Your task to perform on an android device: open a bookmark in the chrome app Image 0: 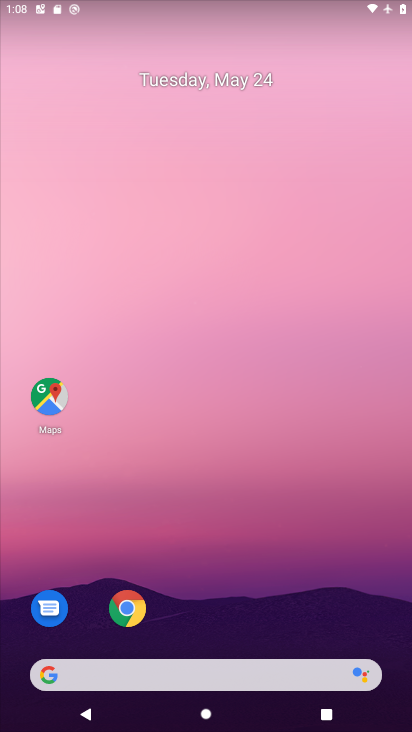
Step 0: click (123, 605)
Your task to perform on an android device: open a bookmark in the chrome app Image 1: 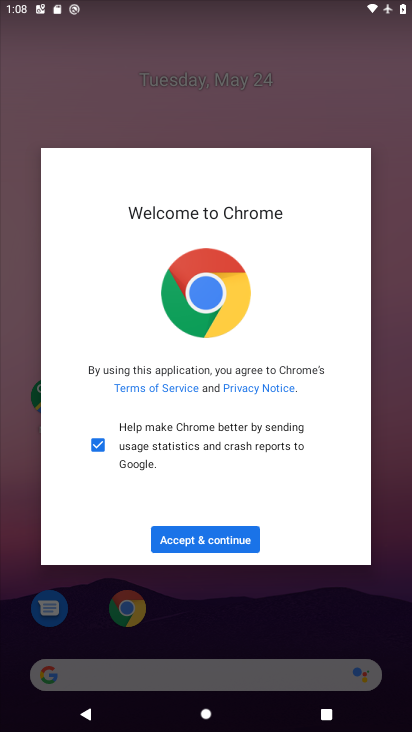
Step 1: click (186, 545)
Your task to perform on an android device: open a bookmark in the chrome app Image 2: 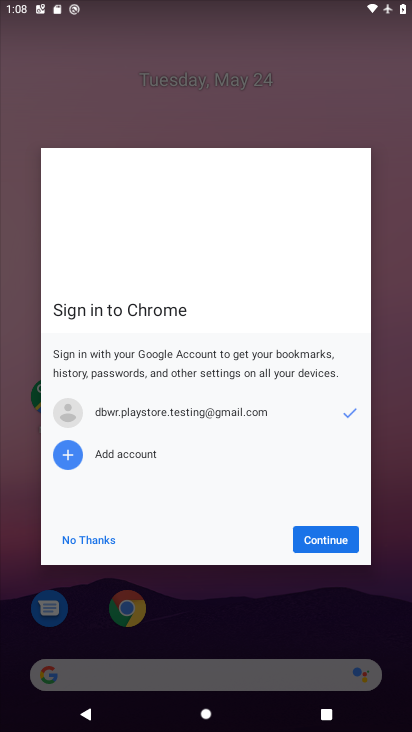
Step 2: click (312, 533)
Your task to perform on an android device: open a bookmark in the chrome app Image 3: 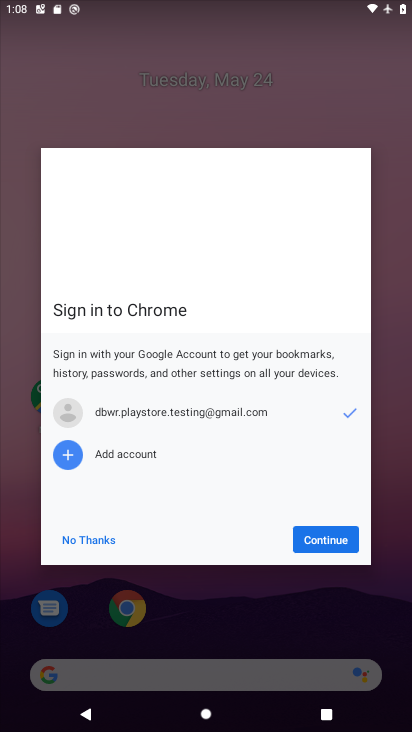
Step 3: click (312, 533)
Your task to perform on an android device: open a bookmark in the chrome app Image 4: 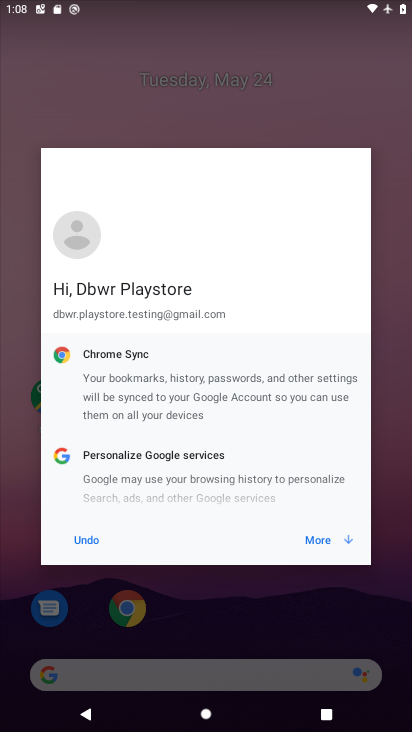
Step 4: click (312, 533)
Your task to perform on an android device: open a bookmark in the chrome app Image 5: 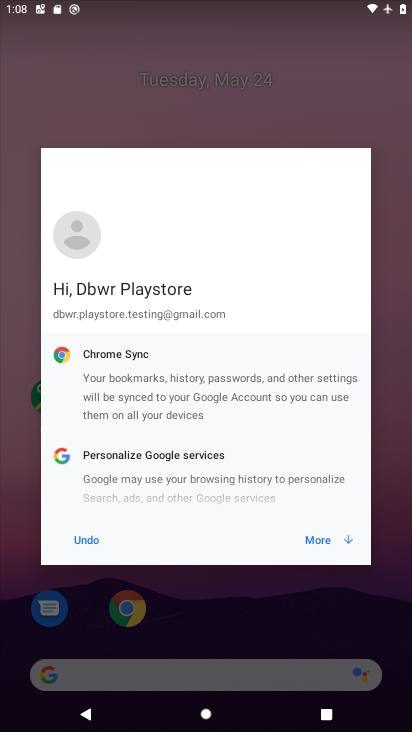
Step 5: click (312, 533)
Your task to perform on an android device: open a bookmark in the chrome app Image 6: 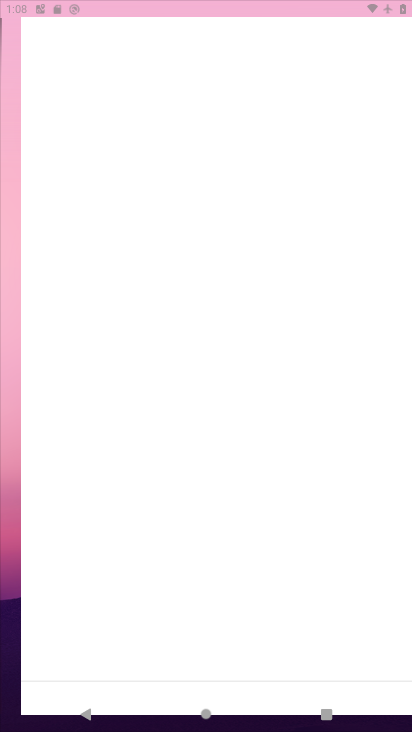
Step 6: click (312, 533)
Your task to perform on an android device: open a bookmark in the chrome app Image 7: 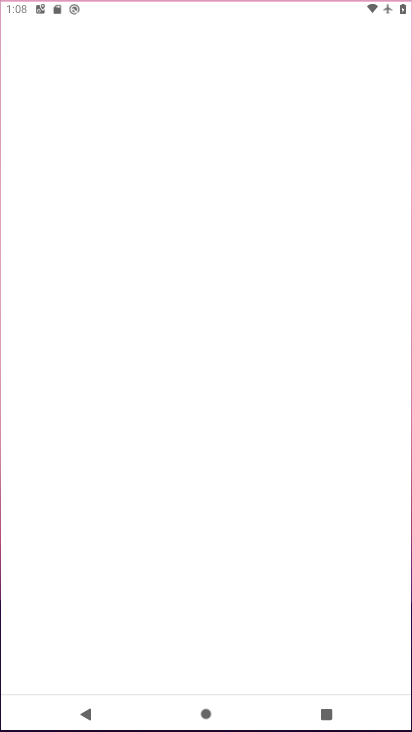
Step 7: click (312, 533)
Your task to perform on an android device: open a bookmark in the chrome app Image 8: 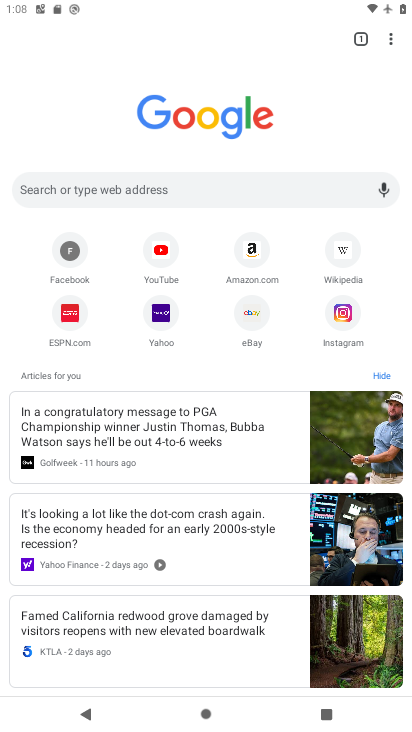
Step 8: click (389, 54)
Your task to perform on an android device: open a bookmark in the chrome app Image 9: 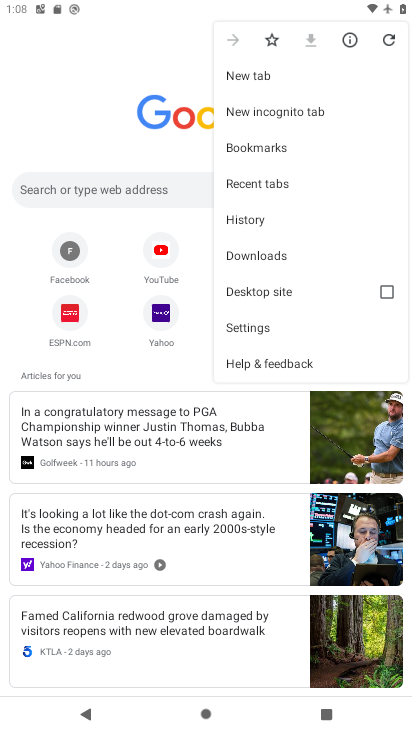
Step 9: click (287, 163)
Your task to perform on an android device: open a bookmark in the chrome app Image 10: 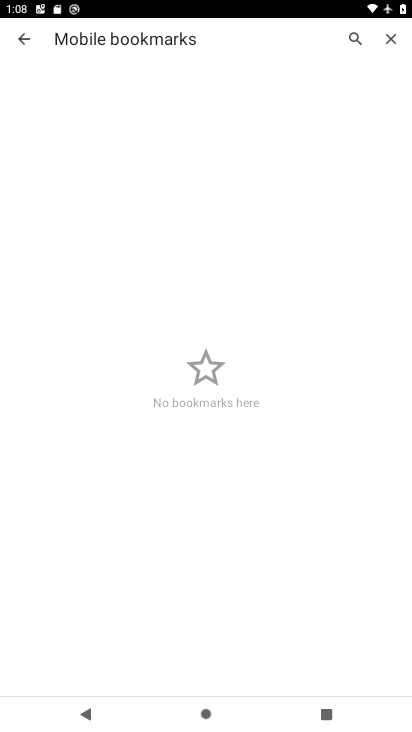
Step 10: task complete